Your task to perform on an android device: Open Amazon Image 0: 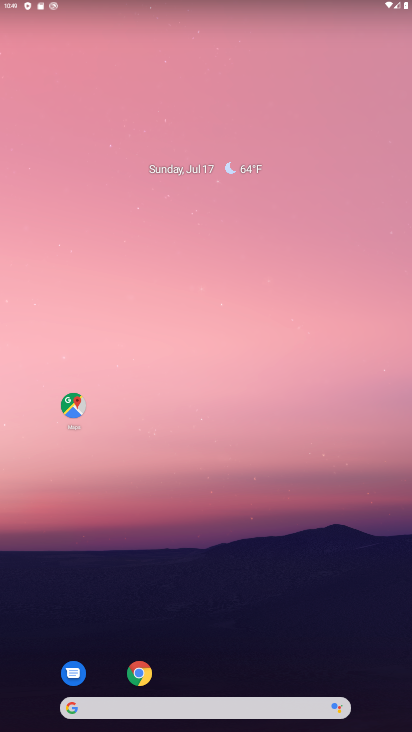
Step 0: drag from (336, 628) to (254, 133)
Your task to perform on an android device: Open Amazon Image 1: 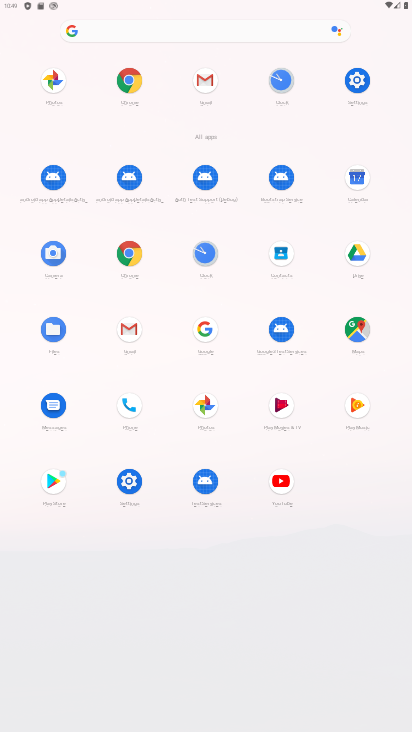
Step 1: click (139, 78)
Your task to perform on an android device: Open Amazon Image 2: 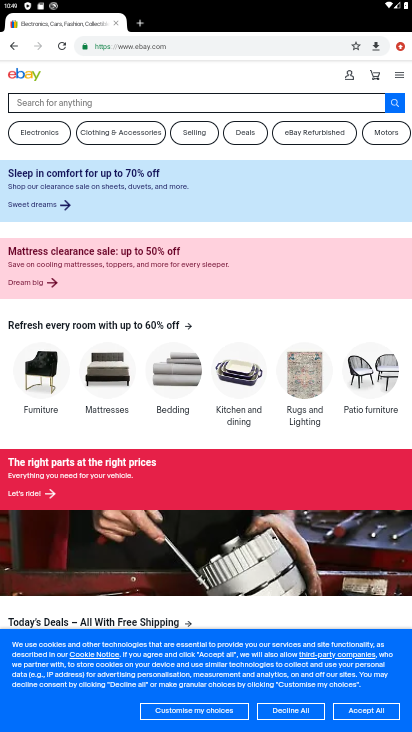
Step 2: click (148, 10)
Your task to perform on an android device: Open Amazon Image 3: 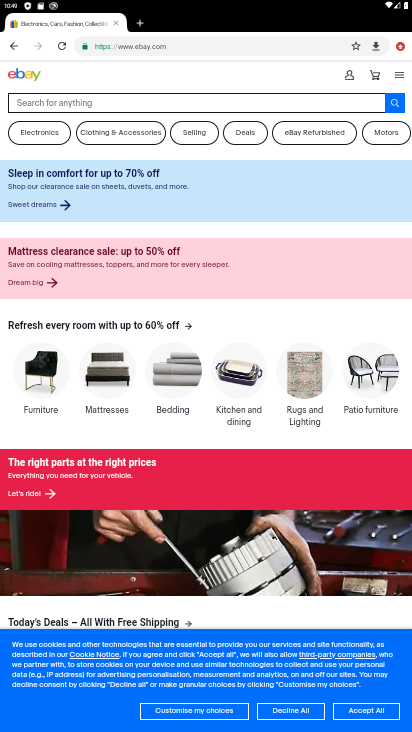
Step 3: click (142, 30)
Your task to perform on an android device: Open Amazon Image 4: 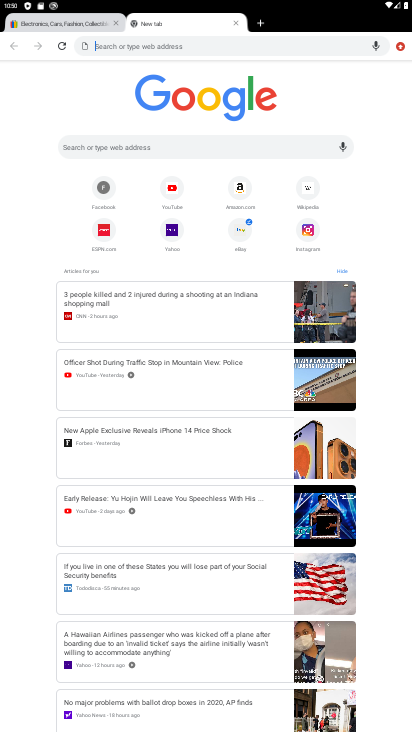
Step 4: click (239, 181)
Your task to perform on an android device: Open Amazon Image 5: 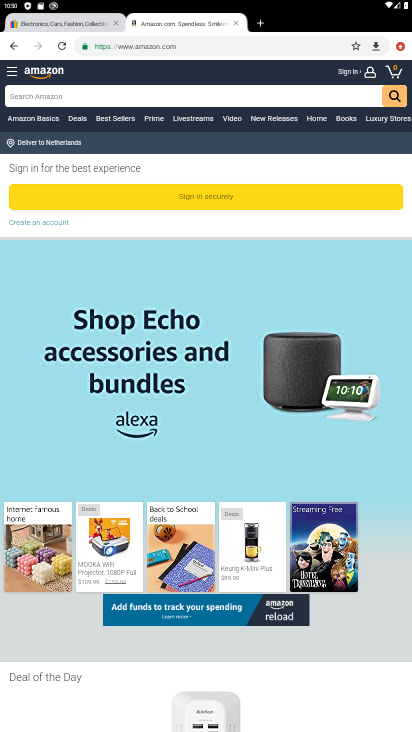
Step 5: task complete